Your task to perform on an android device: What is the news today? Image 0: 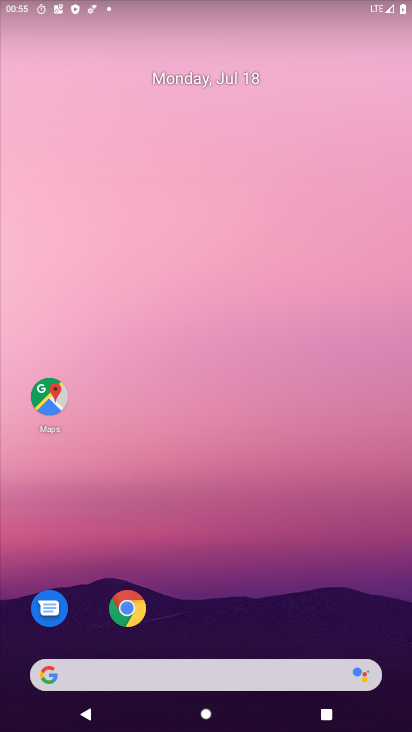
Step 0: drag from (252, 628) to (339, 32)
Your task to perform on an android device: What is the news today? Image 1: 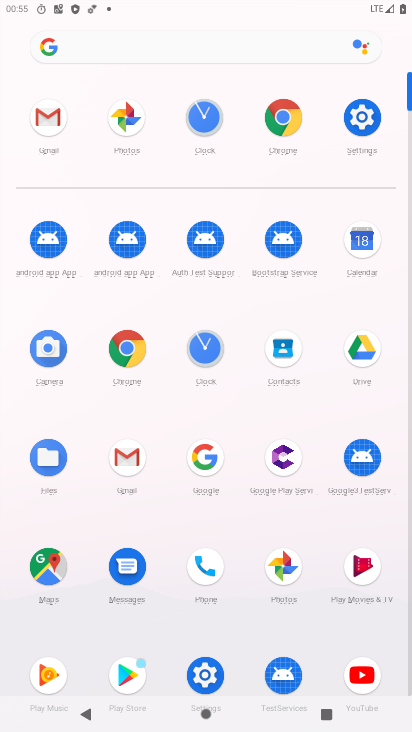
Step 1: click (286, 120)
Your task to perform on an android device: What is the news today? Image 2: 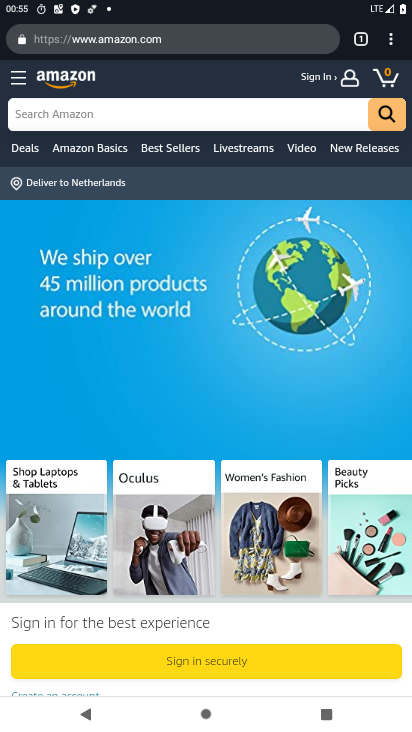
Step 2: task complete